Your task to perform on an android device: What's on my calendar tomorrow? Image 0: 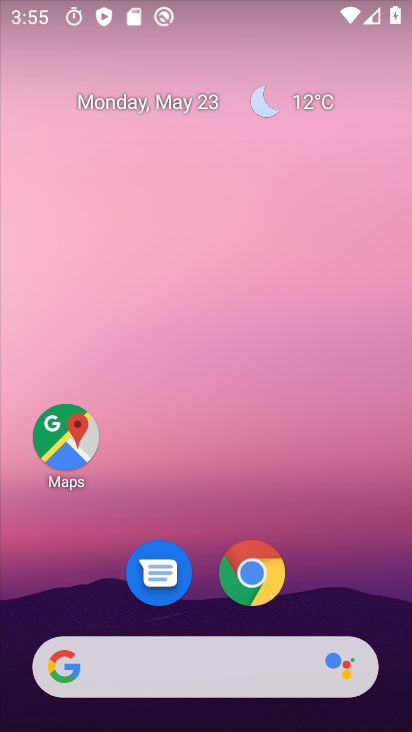
Step 0: press home button
Your task to perform on an android device: What's on my calendar tomorrow? Image 1: 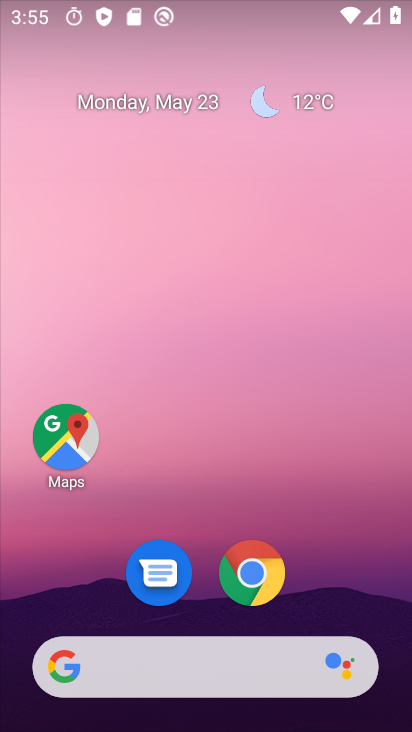
Step 1: drag from (33, 547) to (267, 188)
Your task to perform on an android device: What's on my calendar tomorrow? Image 2: 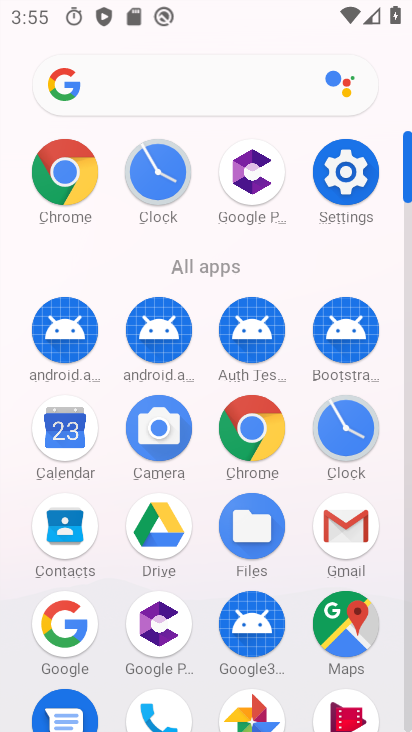
Step 2: click (54, 434)
Your task to perform on an android device: What's on my calendar tomorrow? Image 3: 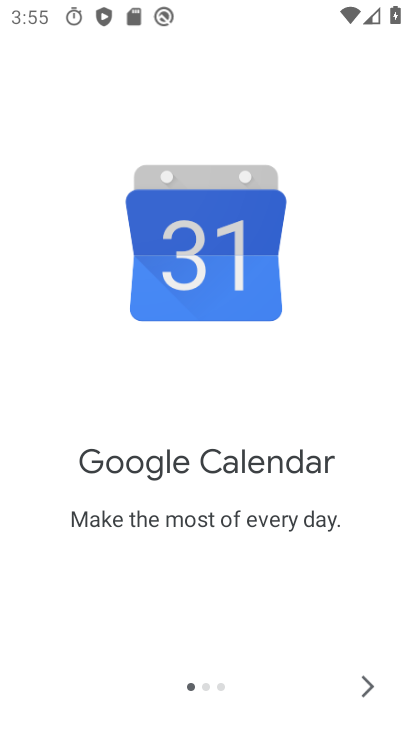
Step 3: click (370, 689)
Your task to perform on an android device: What's on my calendar tomorrow? Image 4: 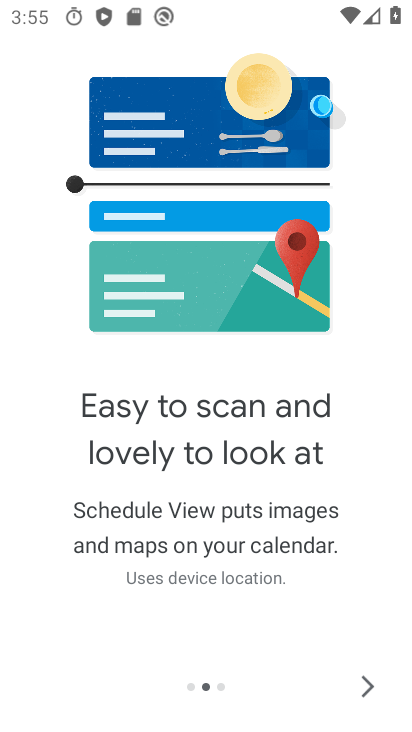
Step 4: click (369, 689)
Your task to perform on an android device: What's on my calendar tomorrow? Image 5: 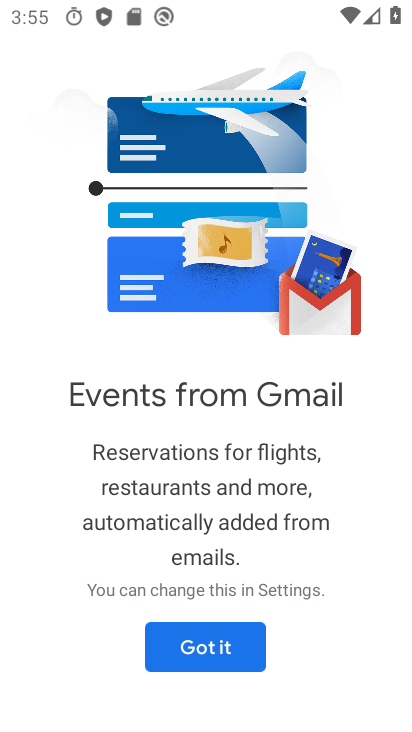
Step 5: click (239, 642)
Your task to perform on an android device: What's on my calendar tomorrow? Image 6: 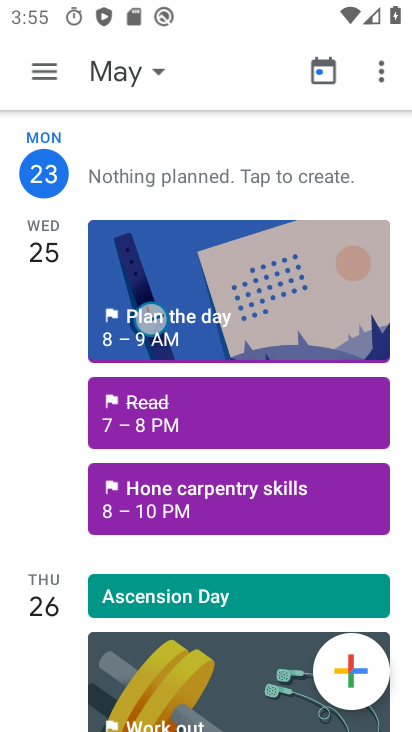
Step 6: click (122, 71)
Your task to perform on an android device: What's on my calendar tomorrow? Image 7: 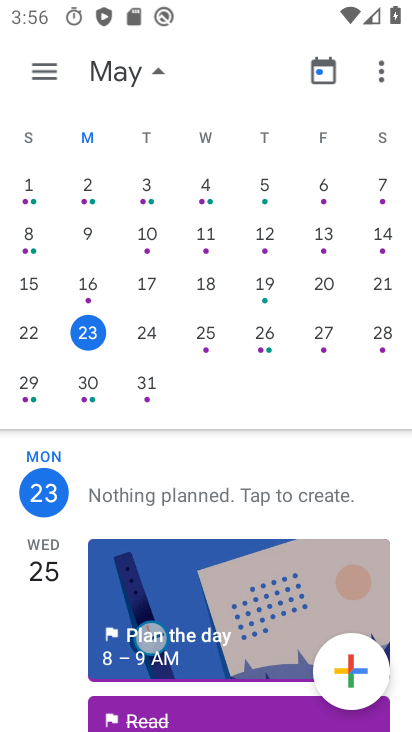
Step 7: click (139, 331)
Your task to perform on an android device: What's on my calendar tomorrow? Image 8: 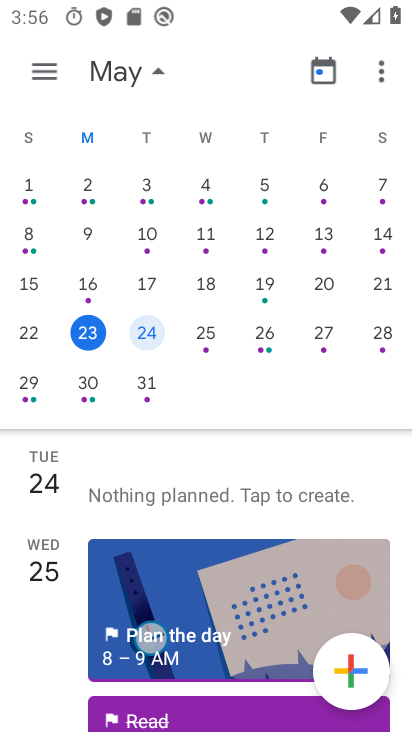
Step 8: task complete